Your task to perform on an android device: turn off smart reply in the gmail app Image 0: 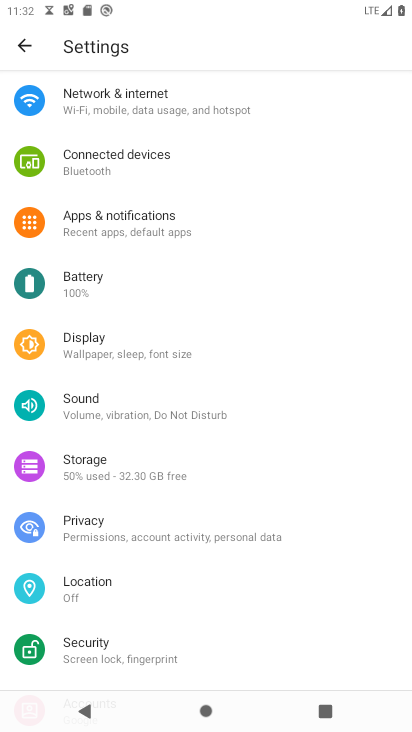
Step 0: press home button
Your task to perform on an android device: turn off smart reply in the gmail app Image 1: 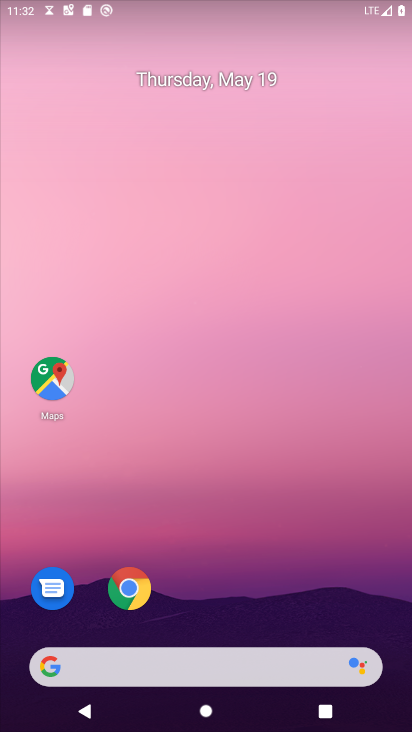
Step 1: drag from (281, 576) to (194, 2)
Your task to perform on an android device: turn off smart reply in the gmail app Image 2: 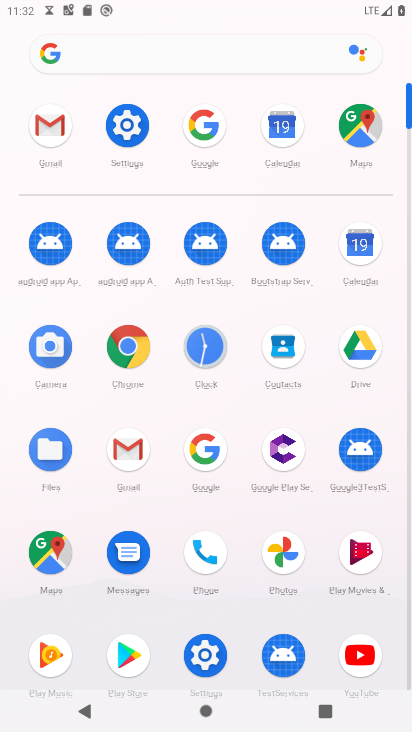
Step 2: click (129, 443)
Your task to perform on an android device: turn off smart reply in the gmail app Image 3: 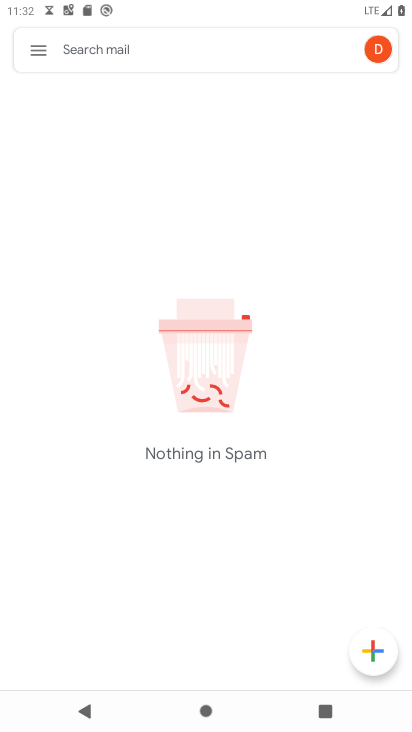
Step 3: click (40, 49)
Your task to perform on an android device: turn off smart reply in the gmail app Image 4: 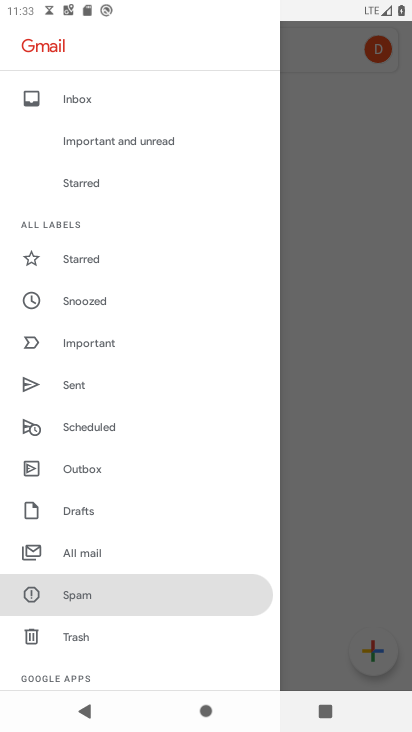
Step 4: drag from (178, 635) to (126, 245)
Your task to perform on an android device: turn off smart reply in the gmail app Image 5: 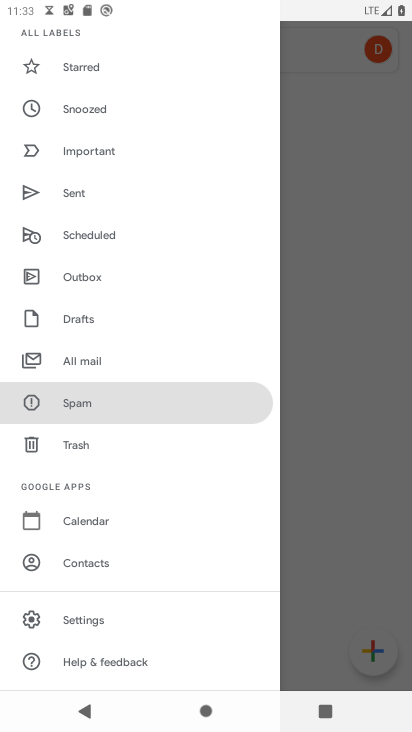
Step 5: click (168, 614)
Your task to perform on an android device: turn off smart reply in the gmail app Image 6: 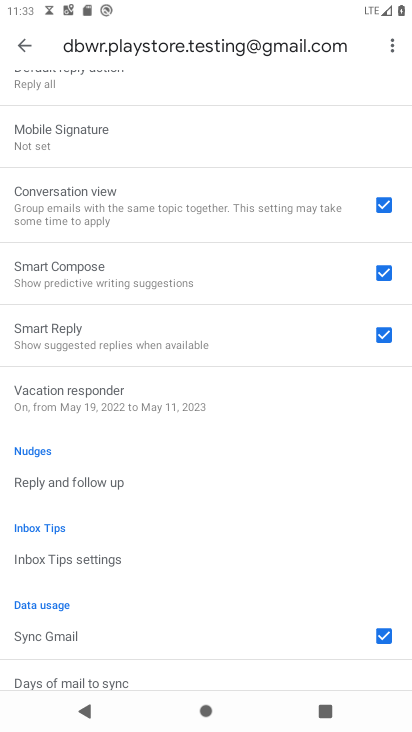
Step 6: click (384, 331)
Your task to perform on an android device: turn off smart reply in the gmail app Image 7: 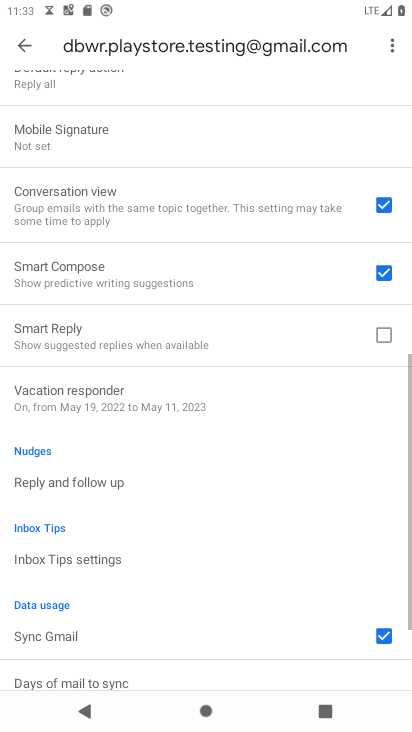
Step 7: task complete